Your task to perform on an android device: toggle data saver in the chrome app Image 0: 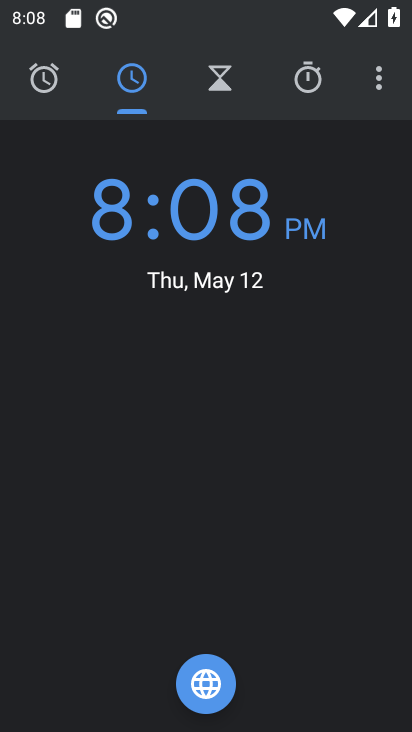
Step 0: press home button
Your task to perform on an android device: toggle data saver in the chrome app Image 1: 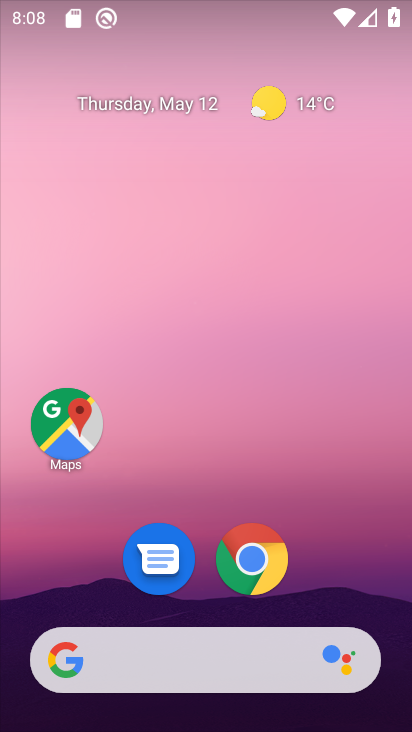
Step 1: click (274, 562)
Your task to perform on an android device: toggle data saver in the chrome app Image 2: 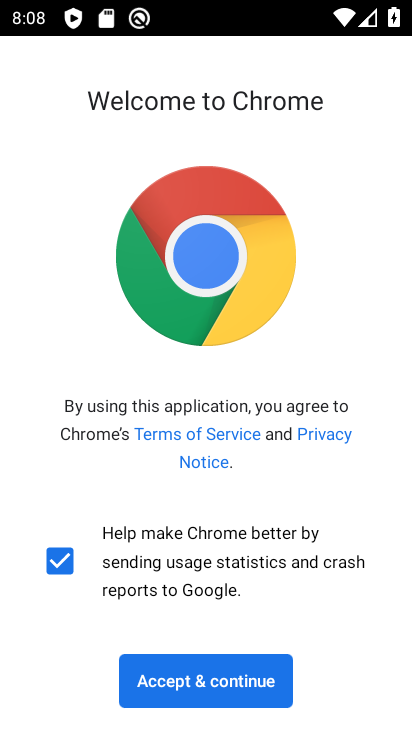
Step 2: click (258, 681)
Your task to perform on an android device: toggle data saver in the chrome app Image 3: 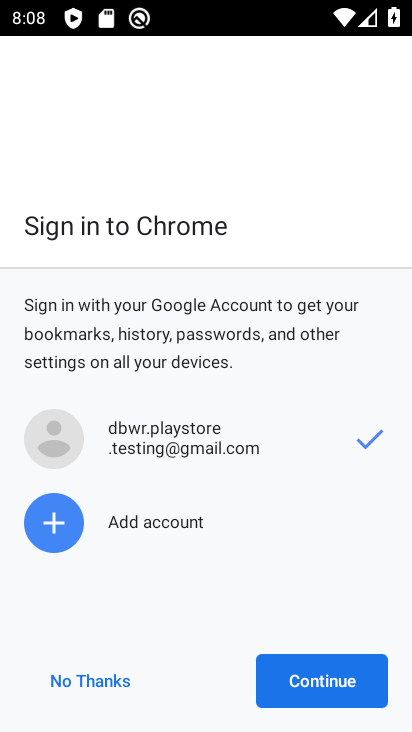
Step 3: click (329, 683)
Your task to perform on an android device: toggle data saver in the chrome app Image 4: 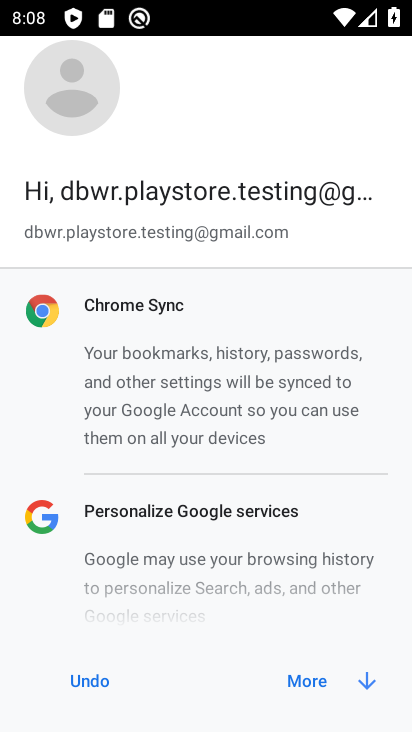
Step 4: click (301, 682)
Your task to perform on an android device: toggle data saver in the chrome app Image 5: 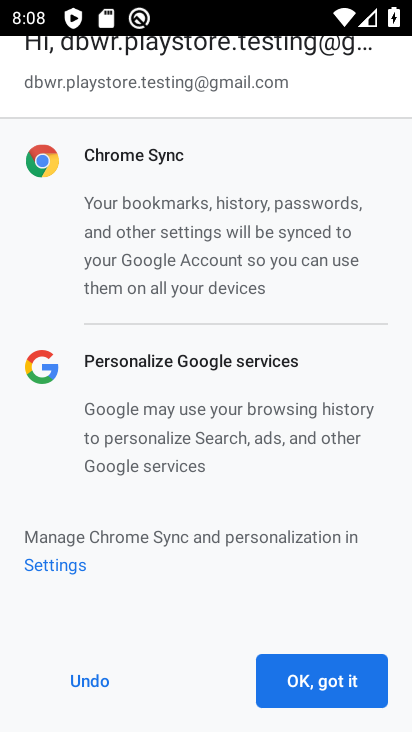
Step 5: click (301, 682)
Your task to perform on an android device: toggle data saver in the chrome app Image 6: 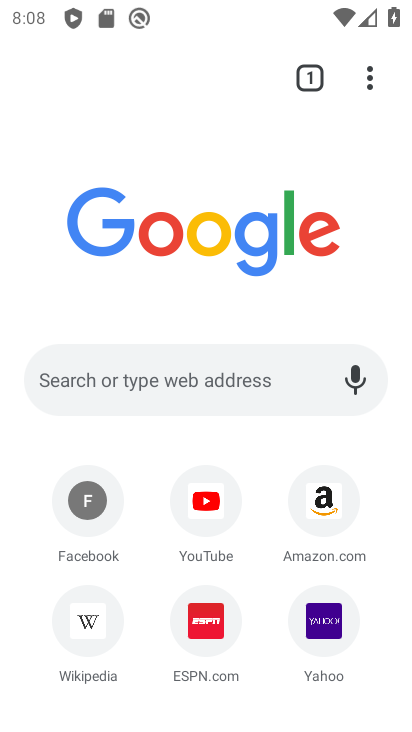
Step 6: drag from (375, 81) to (220, 651)
Your task to perform on an android device: toggle data saver in the chrome app Image 7: 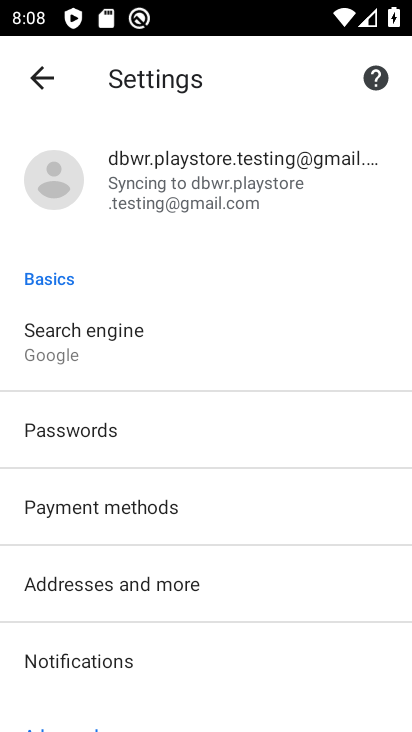
Step 7: drag from (222, 648) to (287, 228)
Your task to perform on an android device: toggle data saver in the chrome app Image 8: 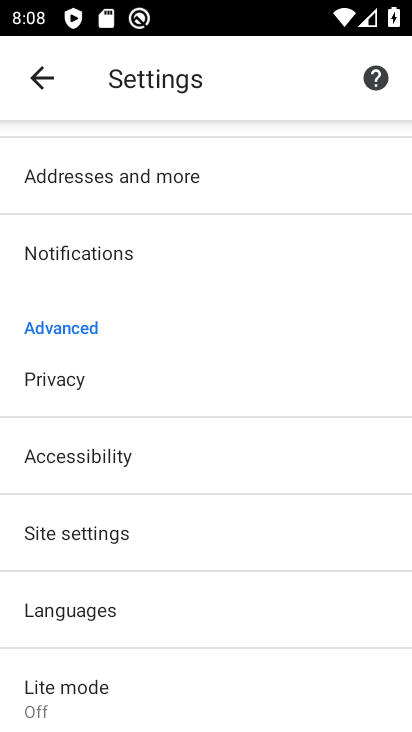
Step 8: click (78, 707)
Your task to perform on an android device: toggle data saver in the chrome app Image 9: 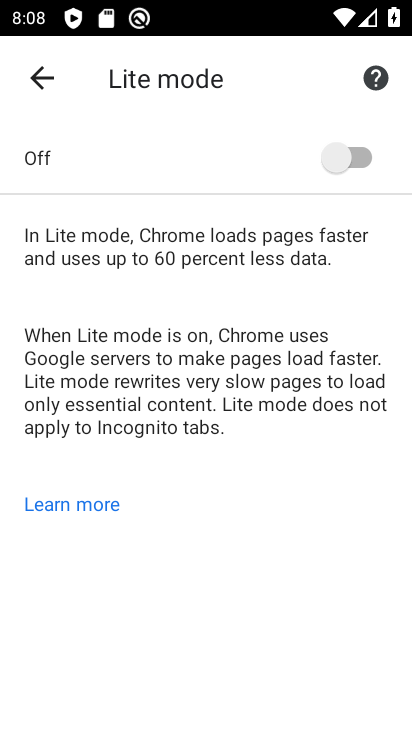
Step 9: click (355, 168)
Your task to perform on an android device: toggle data saver in the chrome app Image 10: 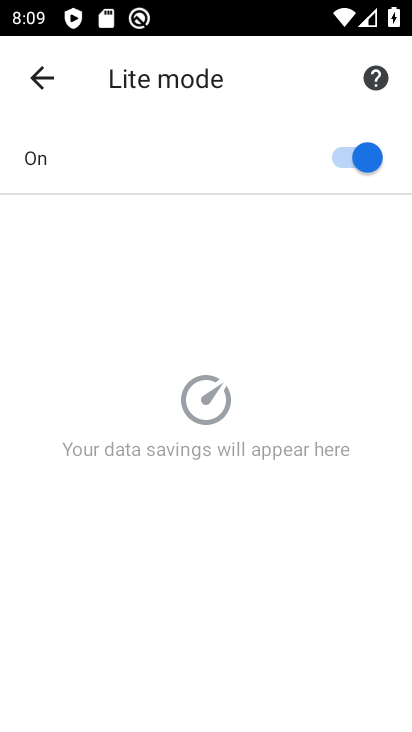
Step 10: task complete